Your task to perform on an android device: Search for a new blush Image 0: 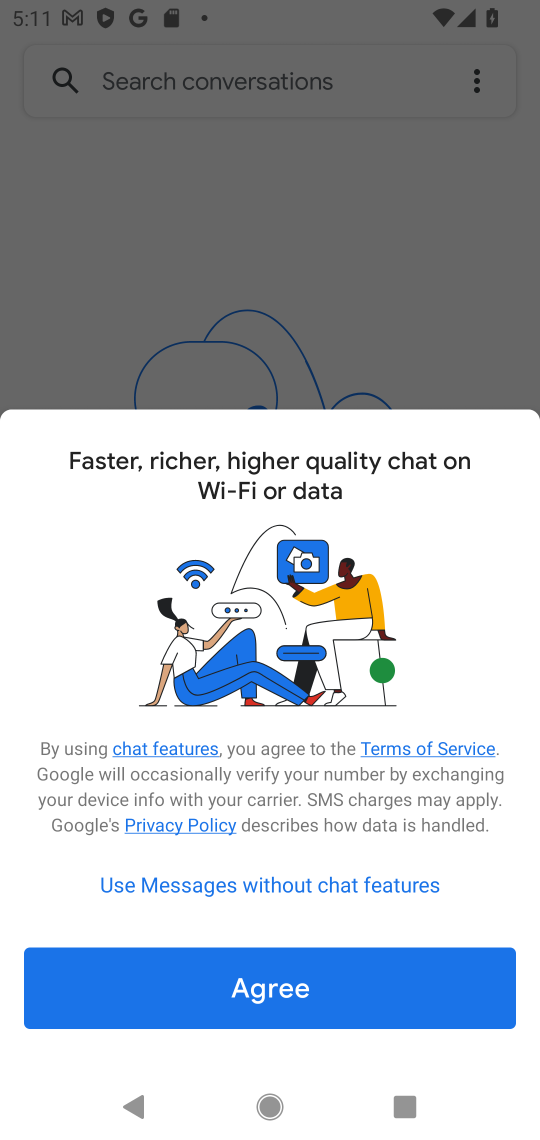
Step 0: press home button
Your task to perform on an android device: Search for a new blush Image 1: 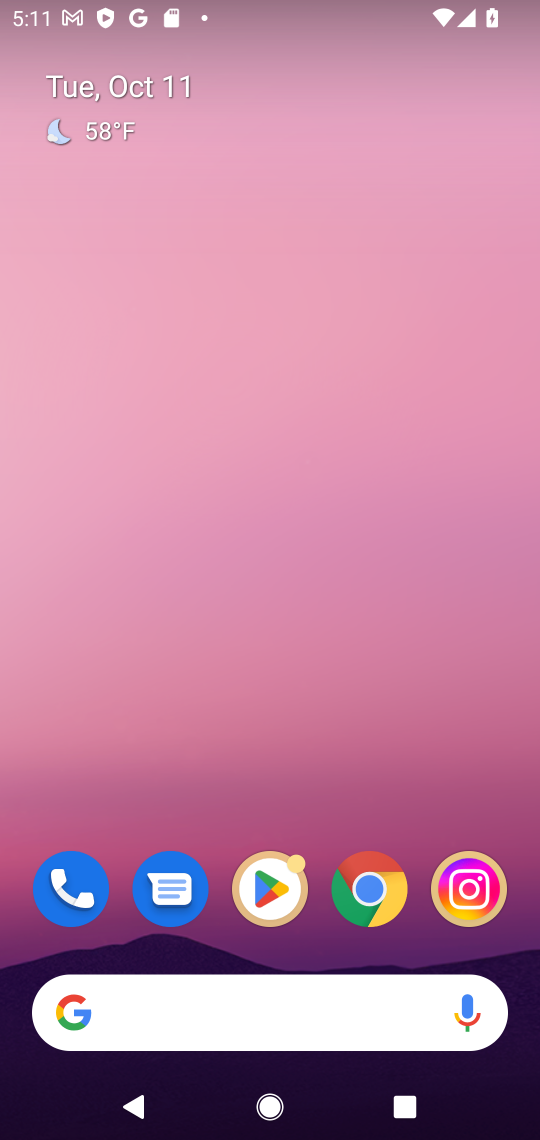
Step 1: drag from (202, 962) to (230, 292)
Your task to perform on an android device: Search for a new blush Image 2: 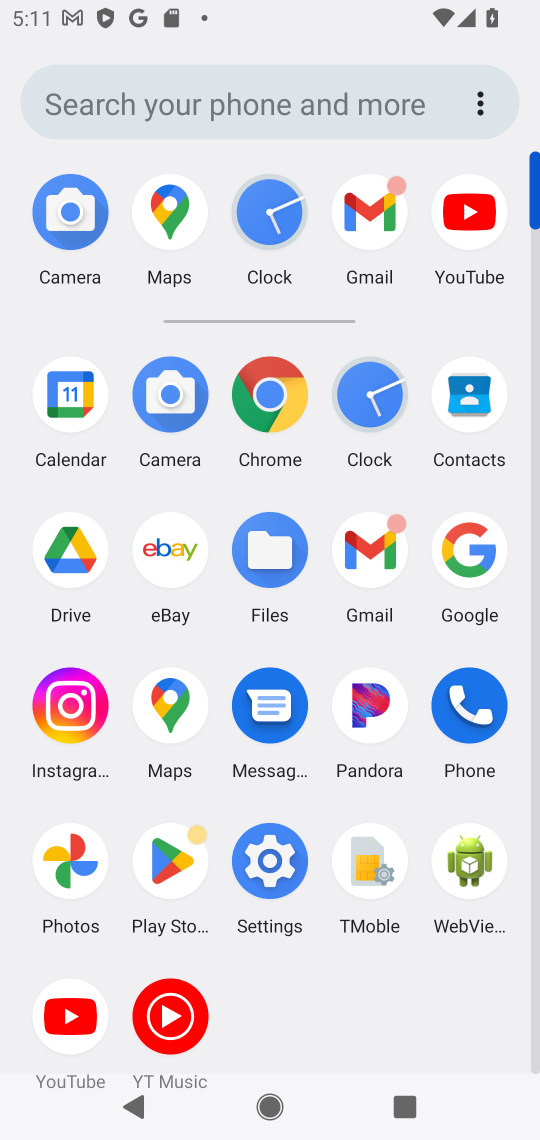
Step 2: click (471, 525)
Your task to perform on an android device: Search for a new blush Image 3: 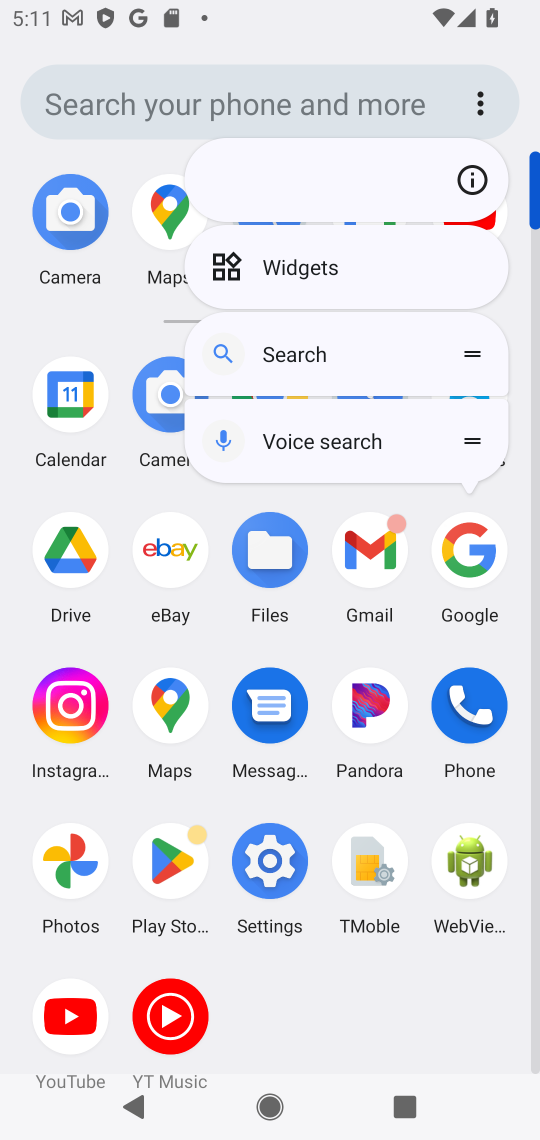
Step 3: click (471, 528)
Your task to perform on an android device: Search for a new blush Image 4: 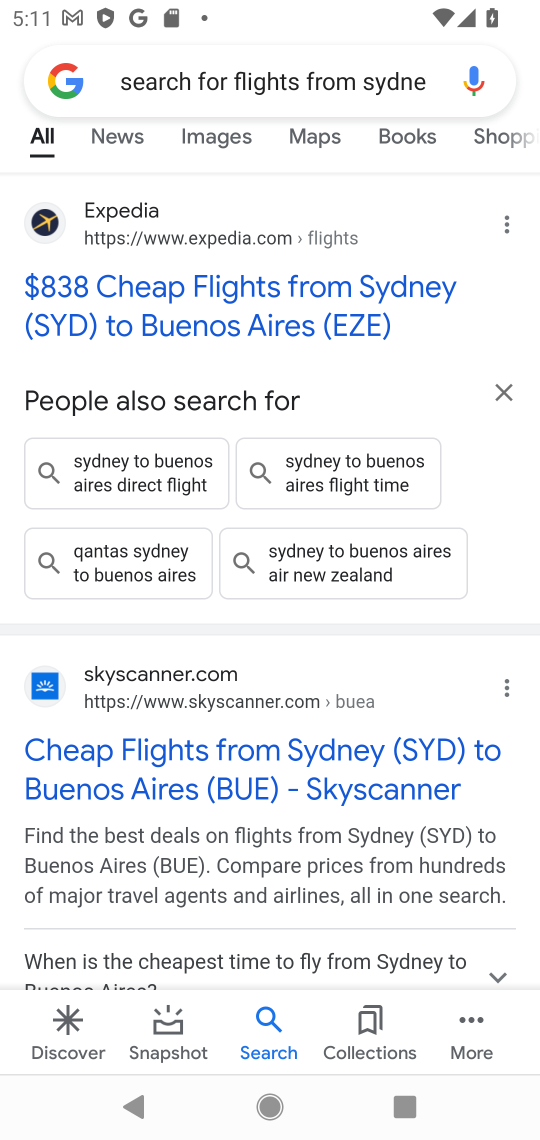
Step 4: click (306, 72)
Your task to perform on an android device: Search for a new blush Image 5: 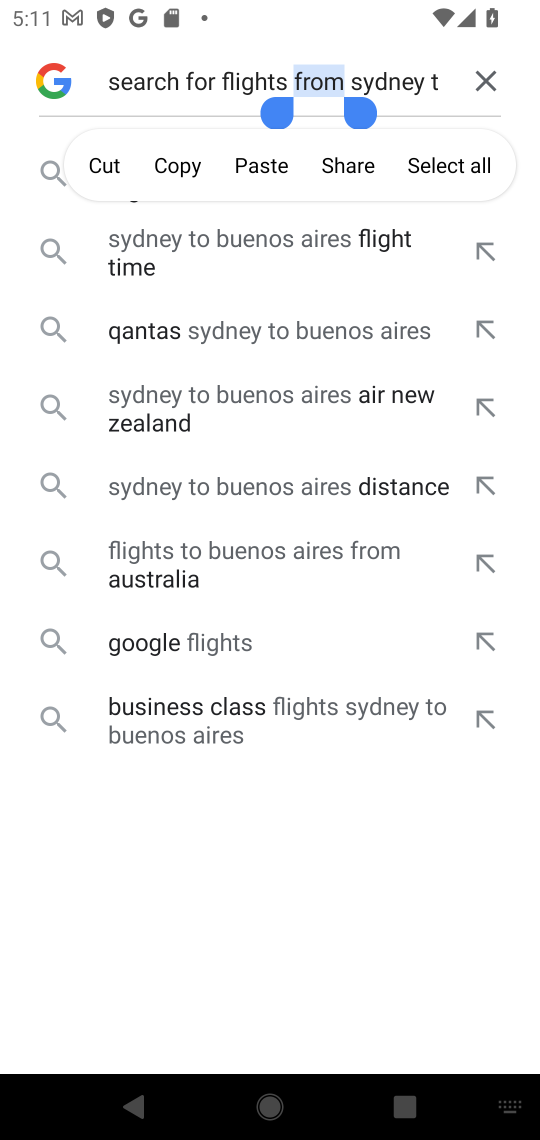
Step 5: click (483, 74)
Your task to perform on an android device: Search for a new blush Image 6: 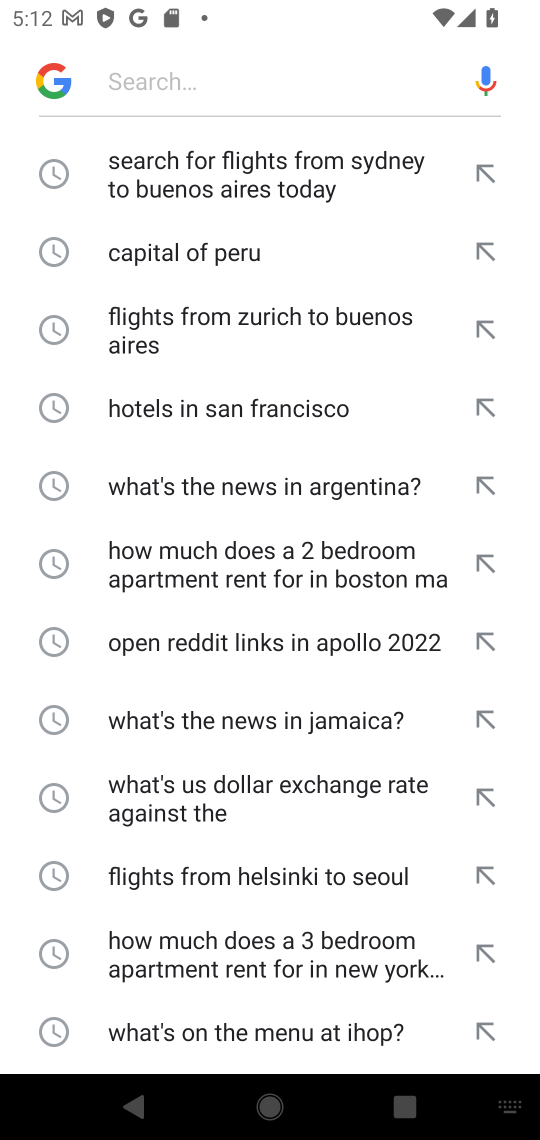
Step 6: click (151, 63)
Your task to perform on an android device: Search for a new blush Image 7: 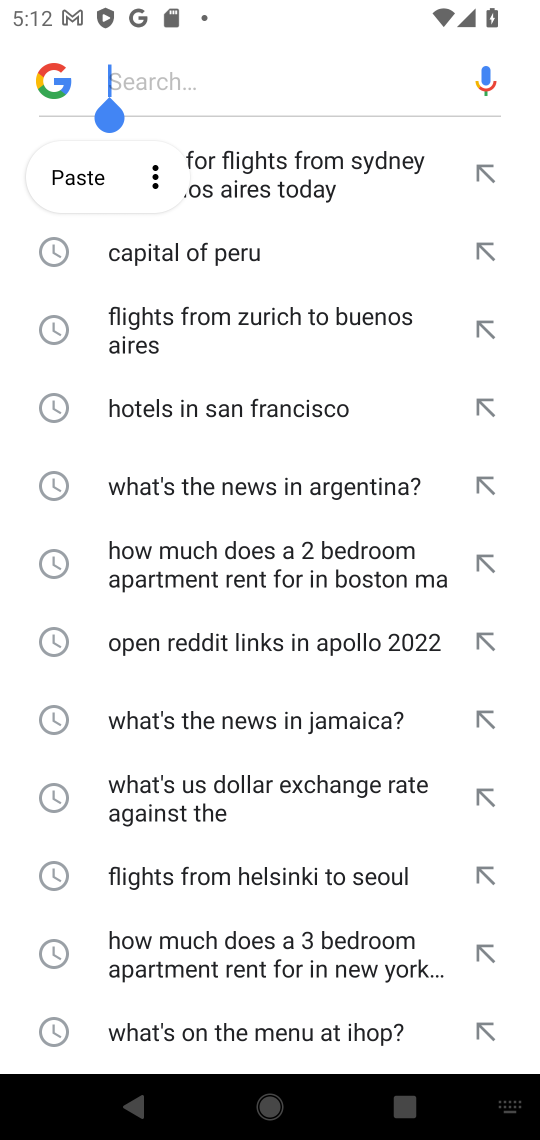
Step 7: type "Search for a new blush "
Your task to perform on an android device: Search for a new blush Image 8: 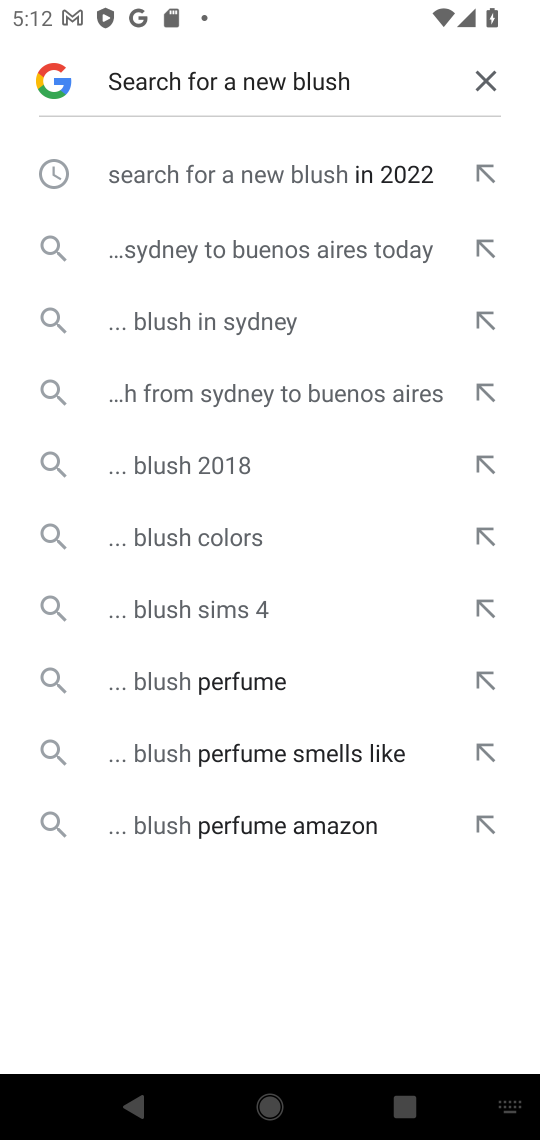
Step 8: click (262, 177)
Your task to perform on an android device: Search for a new blush Image 9: 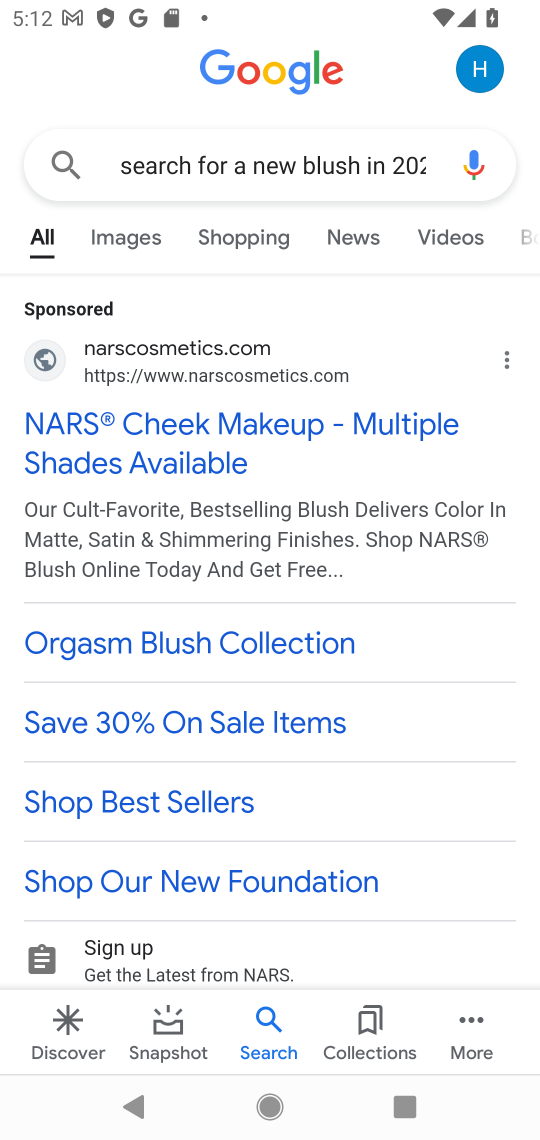
Step 9: click (299, 640)
Your task to perform on an android device: Search for a new blush Image 10: 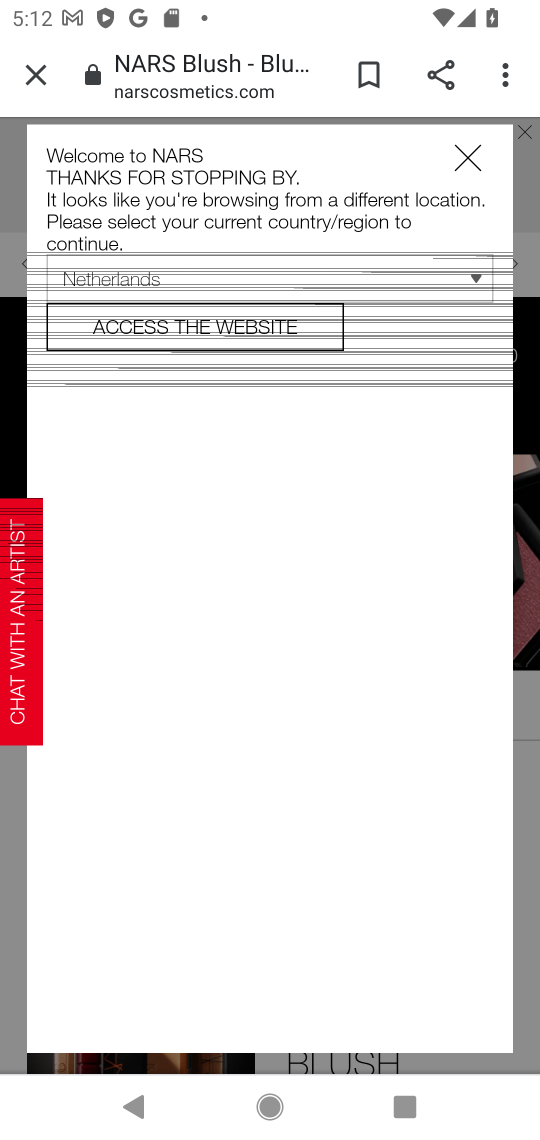
Step 10: click (476, 160)
Your task to perform on an android device: Search for a new blush Image 11: 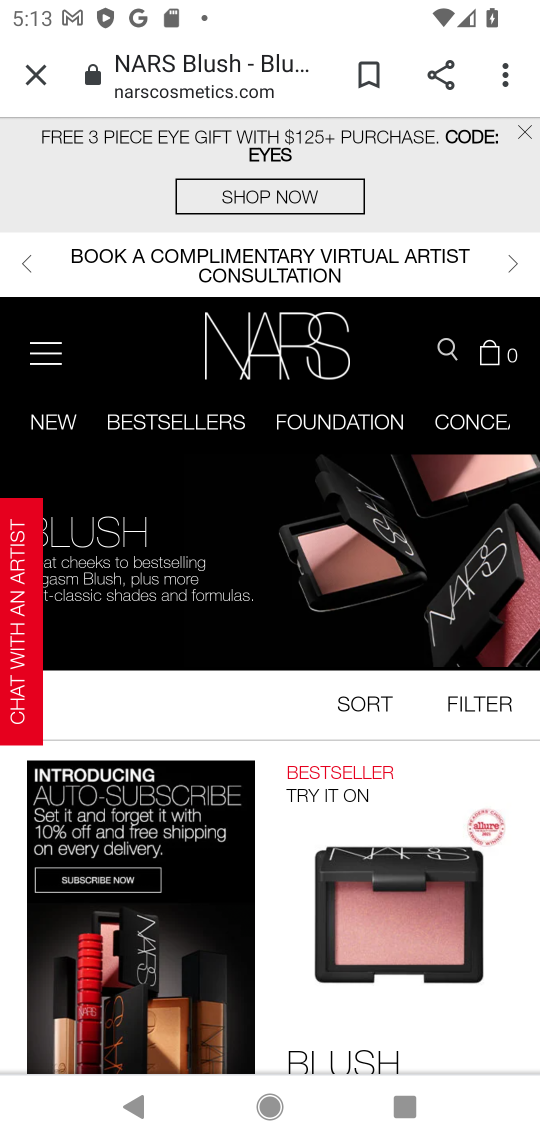
Step 11: task complete